Your task to perform on an android device: Go to Android settings Image 0: 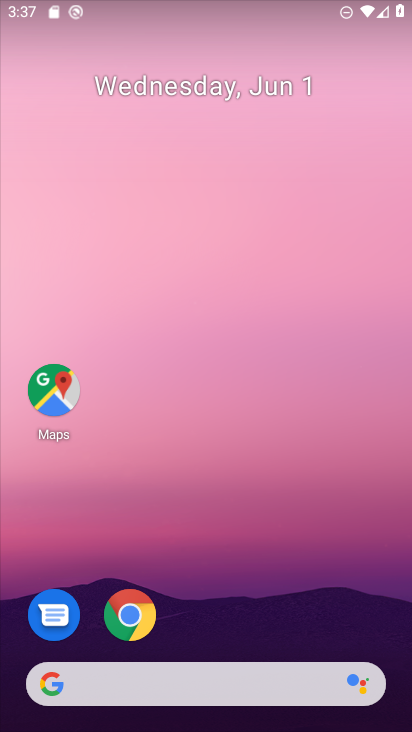
Step 0: drag from (210, 649) to (240, 99)
Your task to perform on an android device: Go to Android settings Image 1: 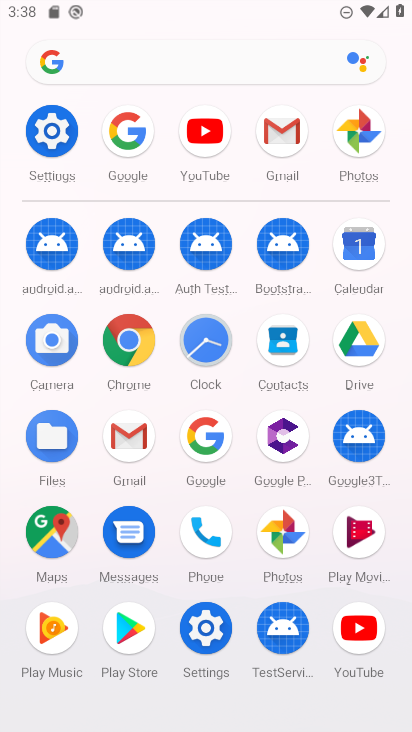
Step 1: click (202, 621)
Your task to perform on an android device: Go to Android settings Image 2: 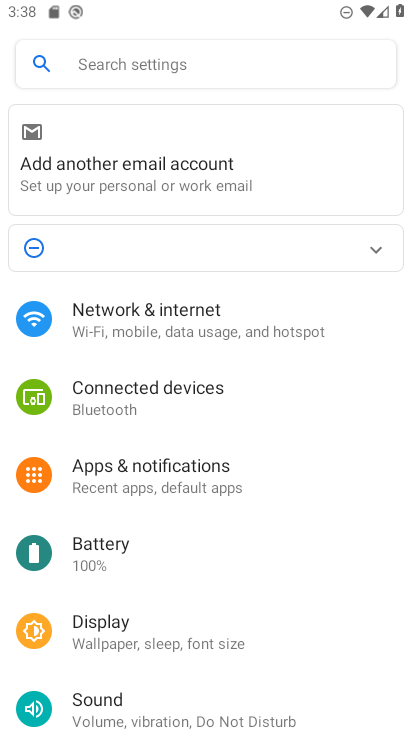
Step 2: drag from (196, 664) to (236, 210)
Your task to perform on an android device: Go to Android settings Image 3: 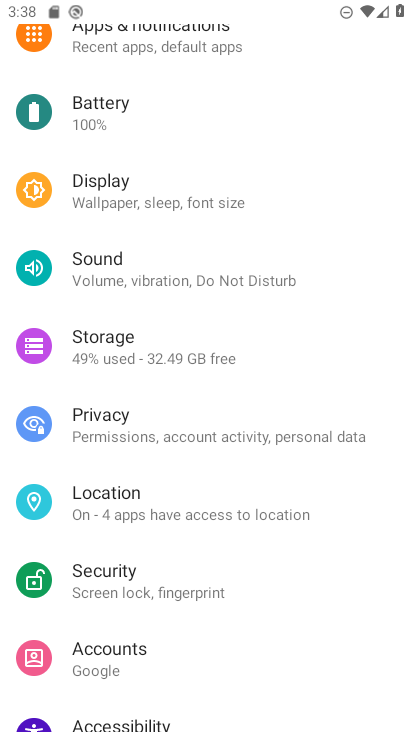
Step 3: drag from (184, 681) to (229, 142)
Your task to perform on an android device: Go to Android settings Image 4: 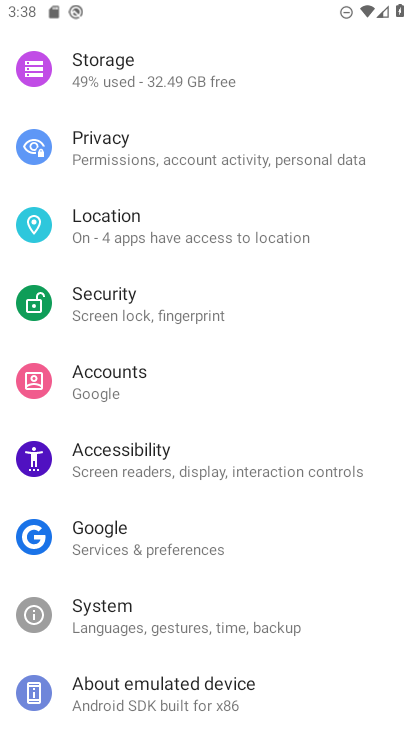
Step 4: click (257, 700)
Your task to perform on an android device: Go to Android settings Image 5: 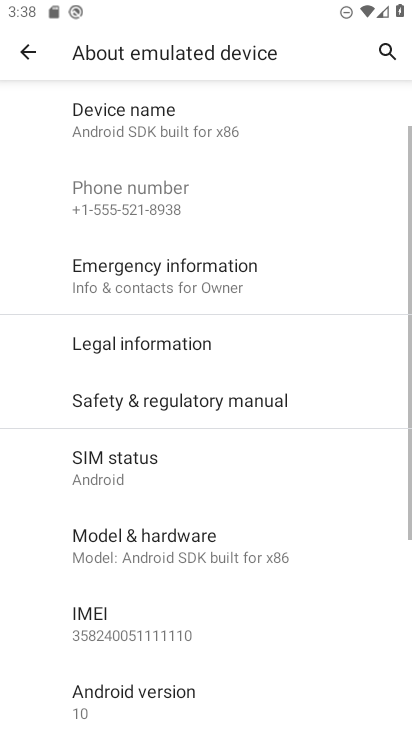
Step 5: click (192, 708)
Your task to perform on an android device: Go to Android settings Image 6: 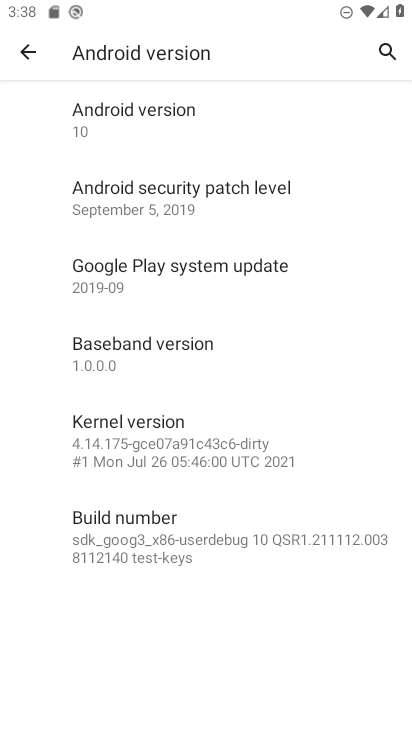
Step 6: task complete